Your task to perform on an android device: When is my next meeting? Image 0: 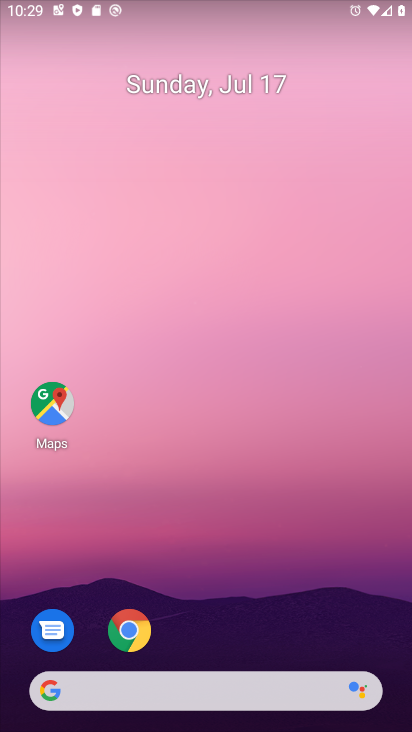
Step 0: drag from (336, 602) to (337, 110)
Your task to perform on an android device: When is my next meeting? Image 1: 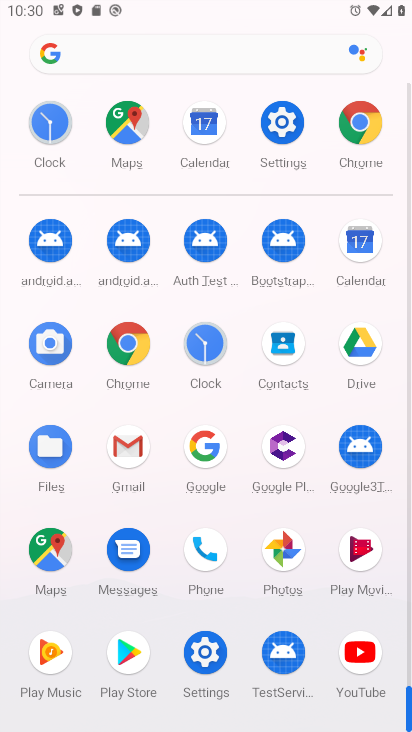
Step 1: click (365, 247)
Your task to perform on an android device: When is my next meeting? Image 2: 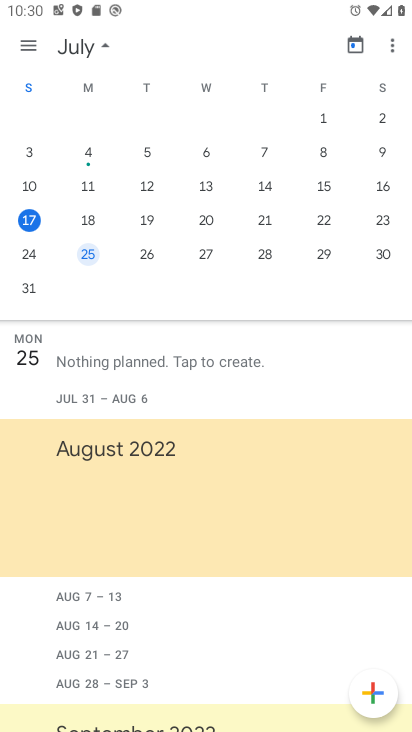
Step 2: task complete